Your task to perform on an android device: change the clock display to analog Image 0: 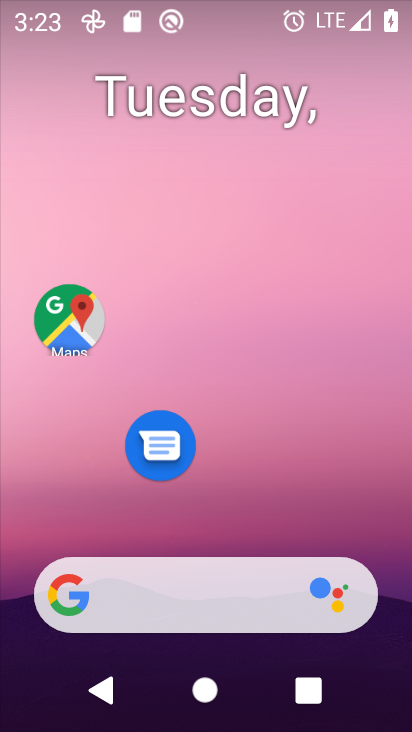
Step 0: click (285, 428)
Your task to perform on an android device: change the clock display to analog Image 1: 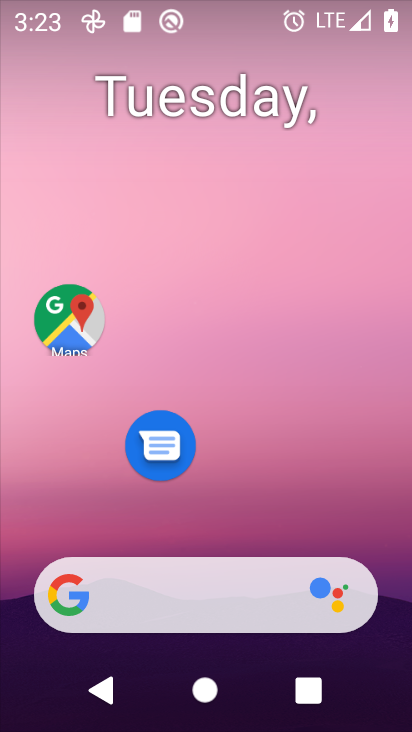
Step 1: drag from (256, 478) to (198, 122)
Your task to perform on an android device: change the clock display to analog Image 2: 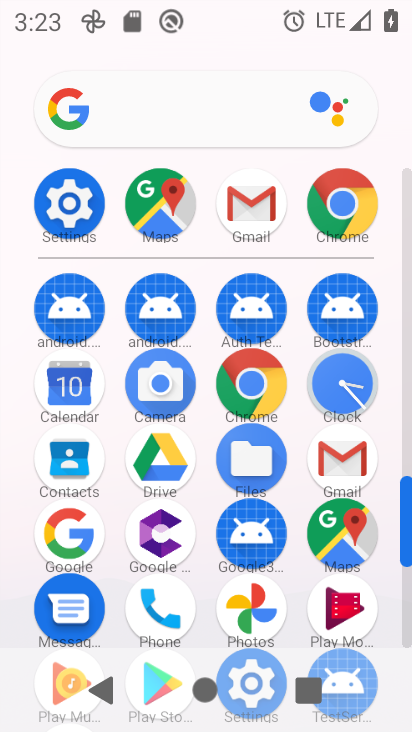
Step 2: click (341, 384)
Your task to perform on an android device: change the clock display to analog Image 3: 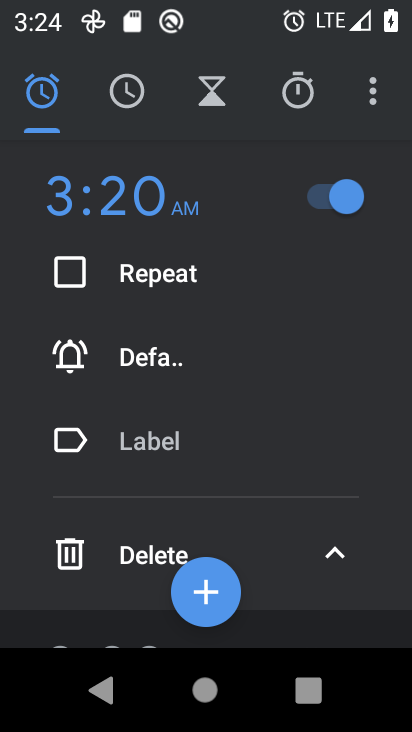
Step 3: click (369, 89)
Your task to perform on an android device: change the clock display to analog Image 4: 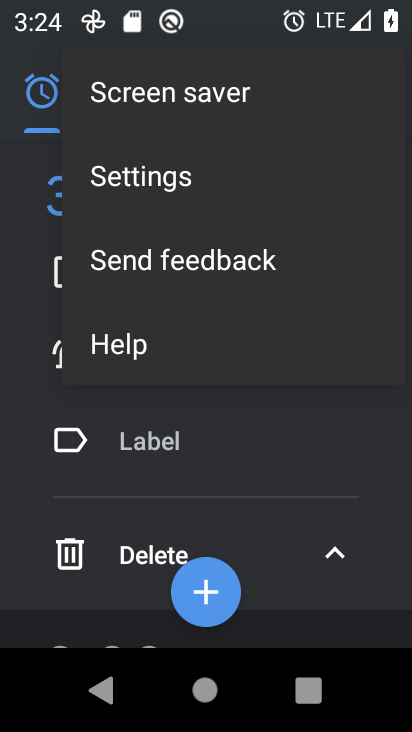
Step 4: click (128, 176)
Your task to perform on an android device: change the clock display to analog Image 5: 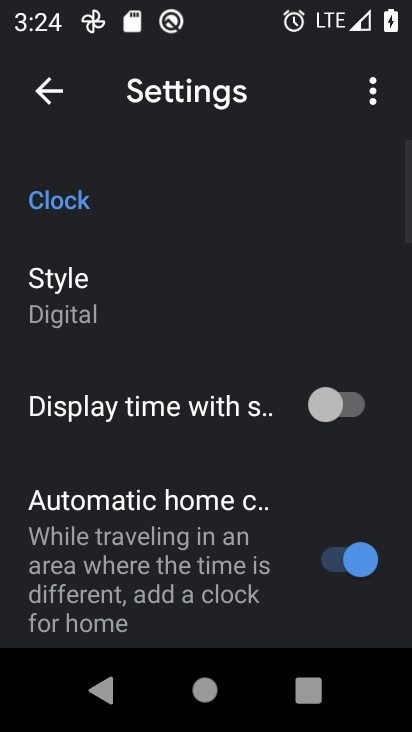
Step 5: click (62, 292)
Your task to perform on an android device: change the clock display to analog Image 6: 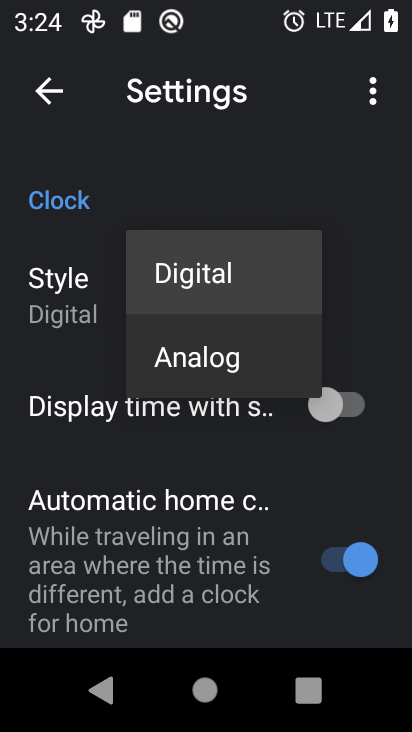
Step 6: click (197, 353)
Your task to perform on an android device: change the clock display to analog Image 7: 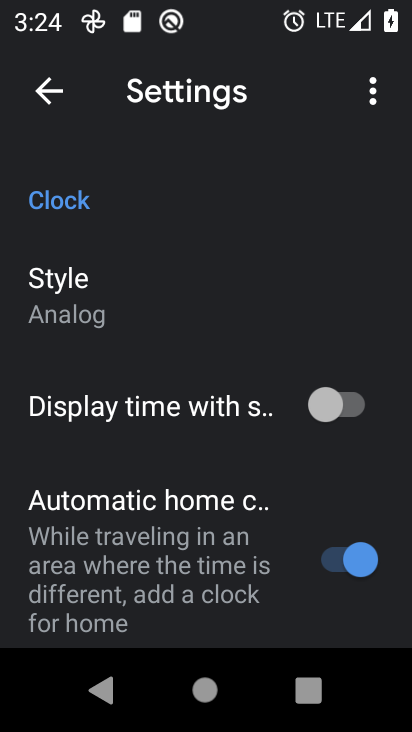
Step 7: task complete